Your task to perform on an android device: add a label to a message in the gmail app Image 0: 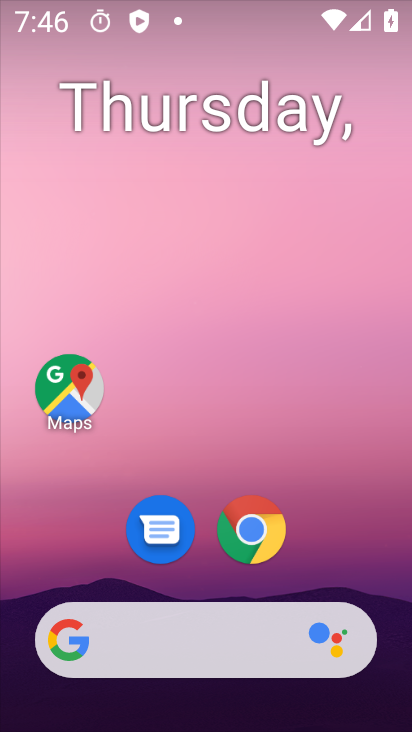
Step 0: press home button
Your task to perform on an android device: add a label to a message in the gmail app Image 1: 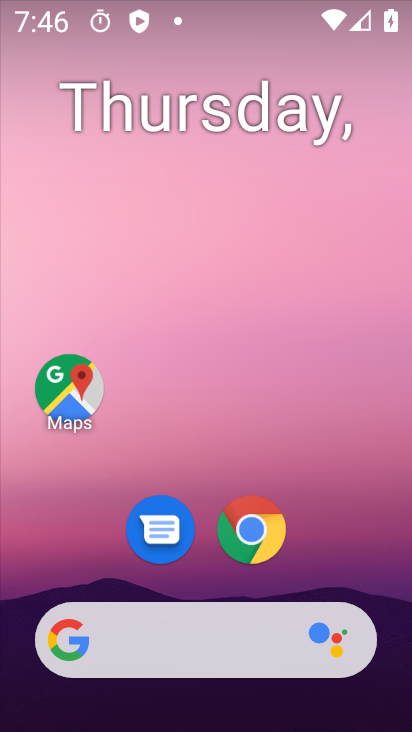
Step 1: drag from (389, 634) to (388, 94)
Your task to perform on an android device: add a label to a message in the gmail app Image 2: 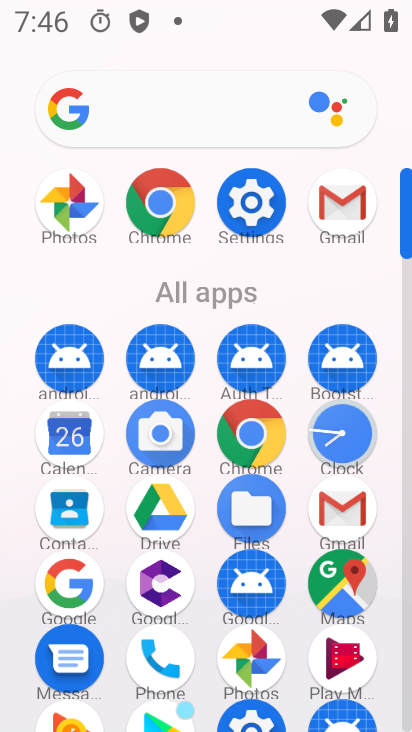
Step 2: click (339, 497)
Your task to perform on an android device: add a label to a message in the gmail app Image 3: 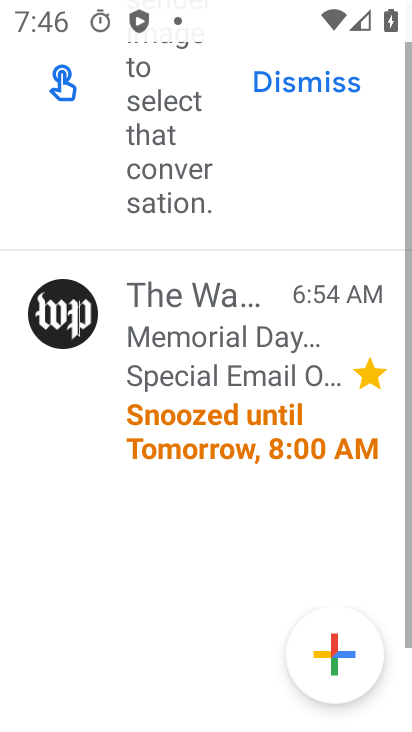
Step 3: drag from (271, 124) to (245, 536)
Your task to perform on an android device: add a label to a message in the gmail app Image 4: 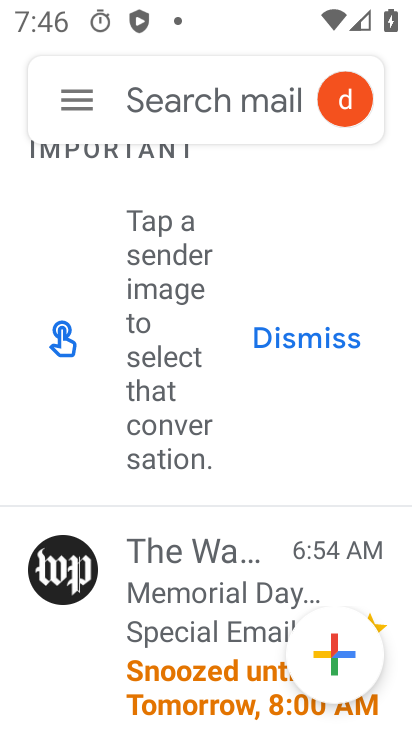
Step 4: click (81, 103)
Your task to perform on an android device: add a label to a message in the gmail app Image 5: 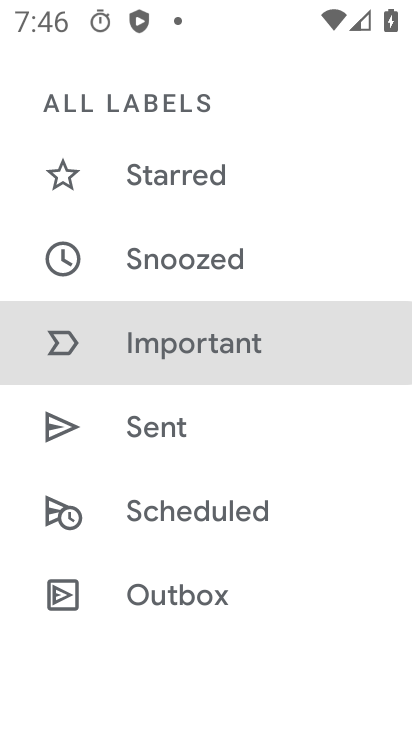
Step 5: drag from (330, 116) to (297, 673)
Your task to perform on an android device: add a label to a message in the gmail app Image 6: 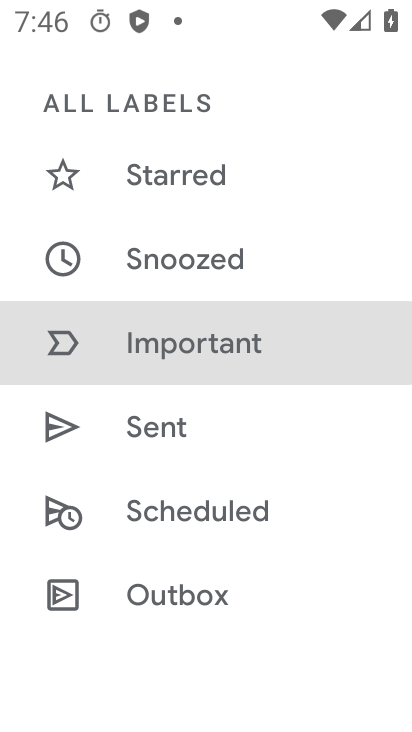
Step 6: drag from (292, 141) to (324, 607)
Your task to perform on an android device: add a label to a message in the gmail app Image 7: 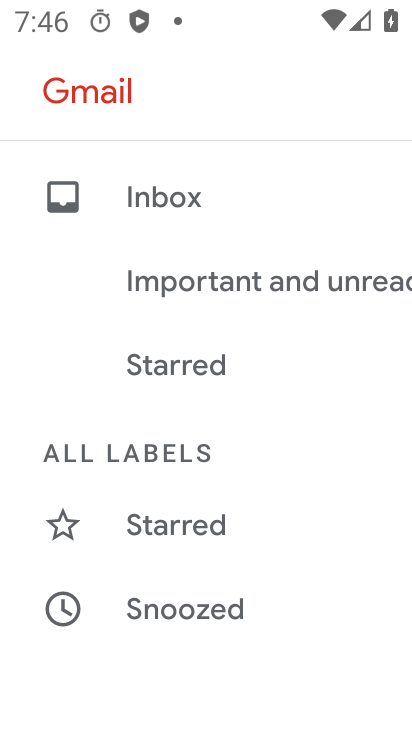
Step 7: click (155, 206)
Your task to perform on an android device: add a label to a message in the gmail app Image 8: 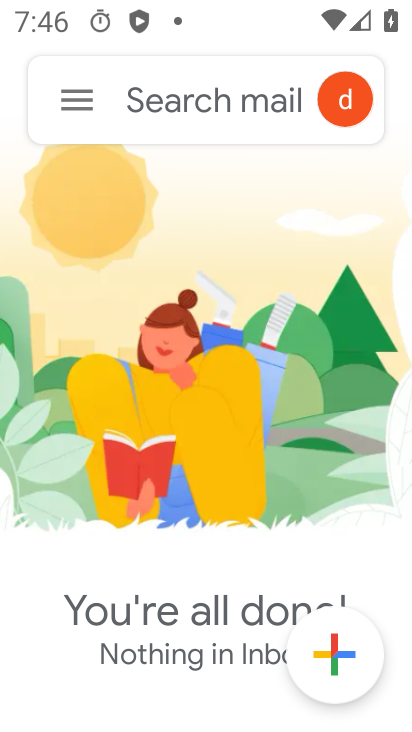
Step 8: click (74, 87)
Your task to perform on an android device: add a label to a message in the gmail app Image 9: 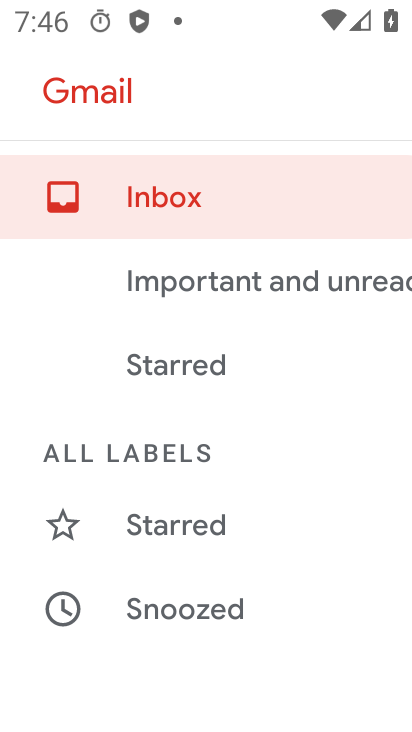
Step 9: click (135, 215)
Your task to perform on an android device: add a label to a message in the gmail app Image 10: 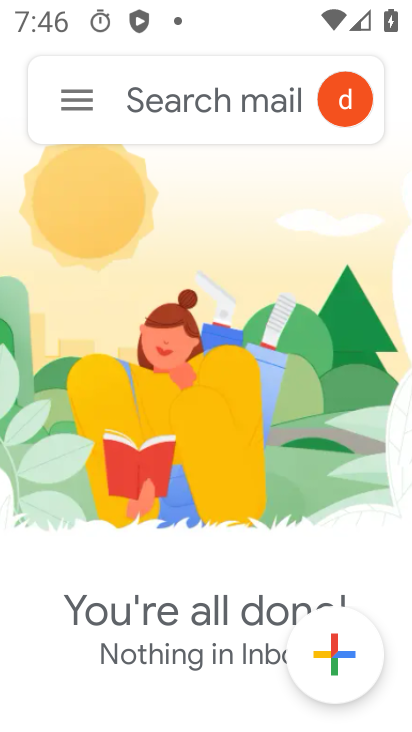
Step 10: task complete